Your task to perform on an android device: turn pop-ups on in chrome Image 0: 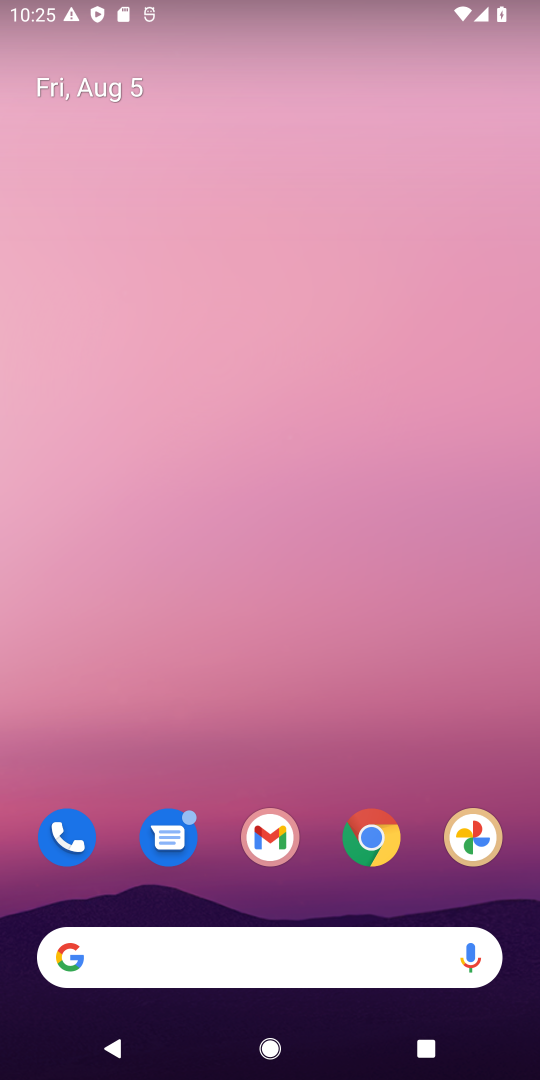
Step 0: click (364, 853)
Your task to perform on an android device: turn pop-ups on in chrome Image 1: 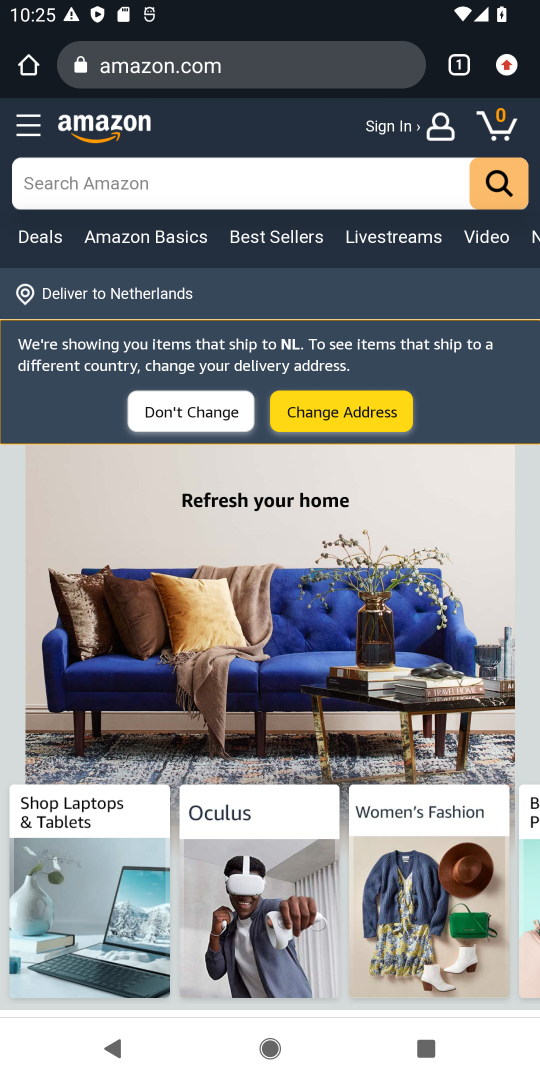
Step 1: click (508, 64)
Your task to perform on an android device: turn pop-ups on in chrome Image 2: 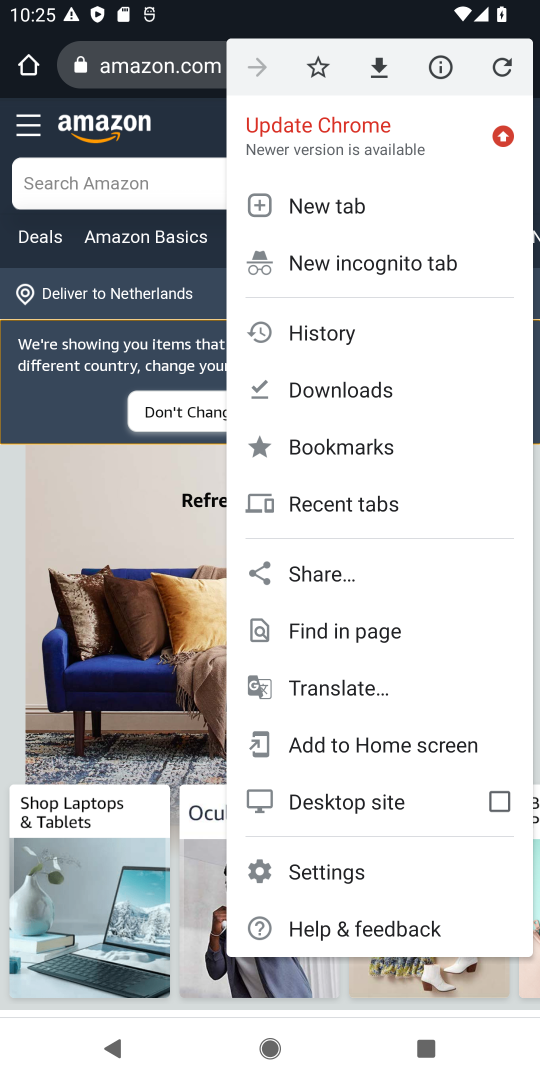
Step 2: click (332, 867)
Your task to perform on an android device: turn pop-ups on in chrome Image 3: 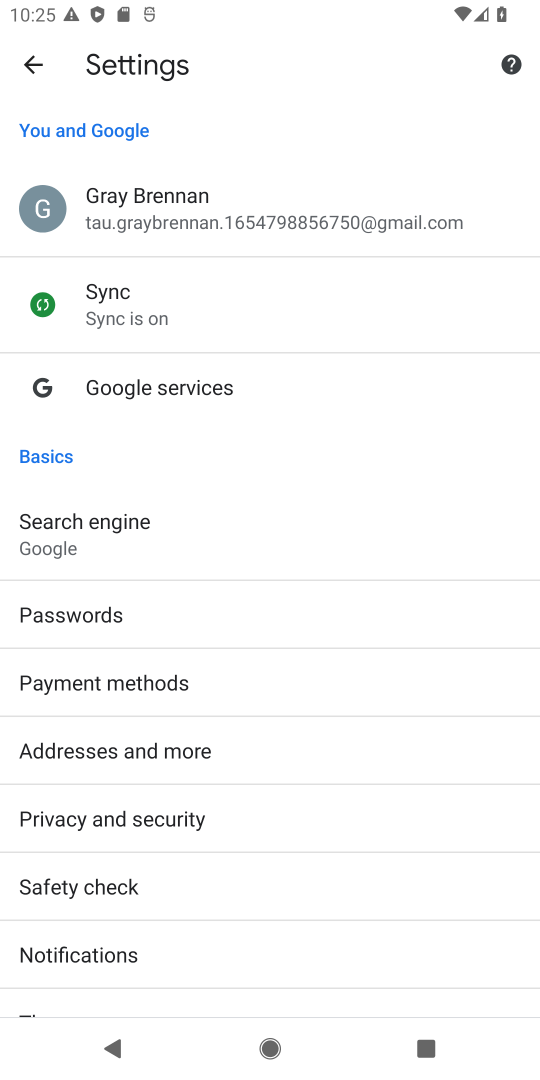
Step 3: drag from (378, 825) to (435, 404)
Your task to perform on an android device: turn pop-ups on in chrome Image 4: 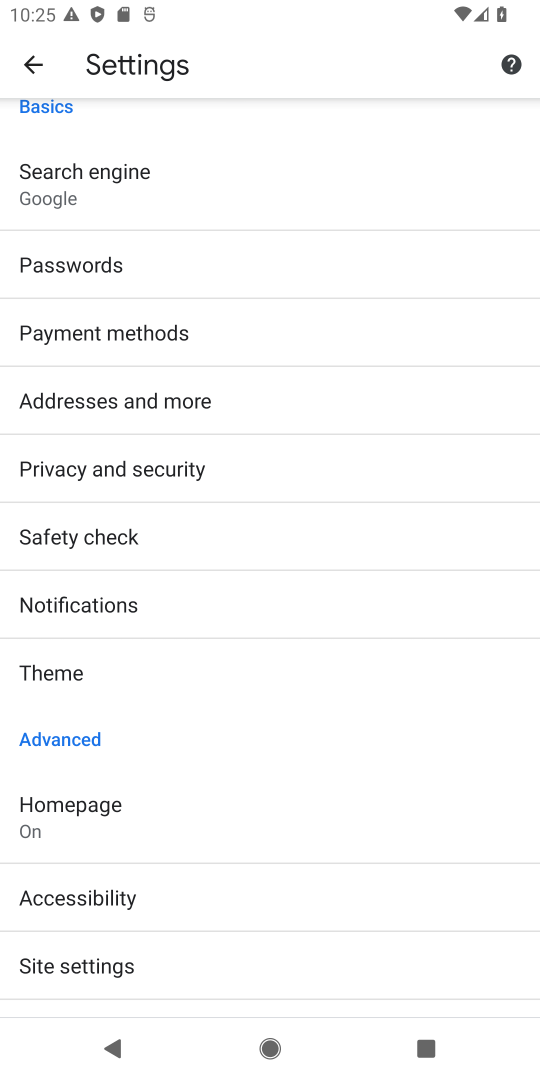
Step 4: click (123, 962)
Your task to perform on an android device: turn pop-ups on in chrome Image 5: 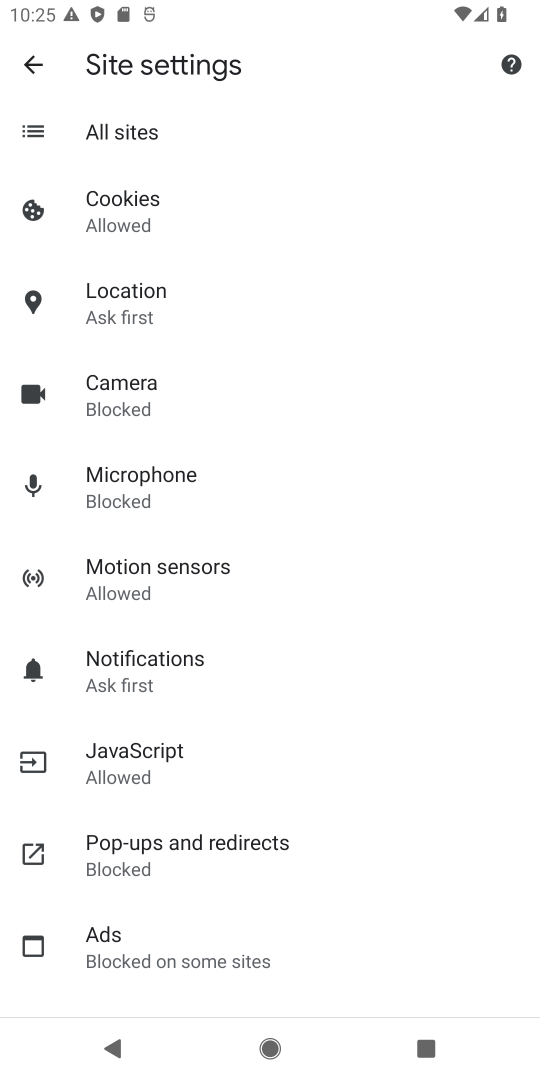
Step 5: click (177, 863)
Your task to perform on an android device: turn pop-ups on in chrome Image 6: 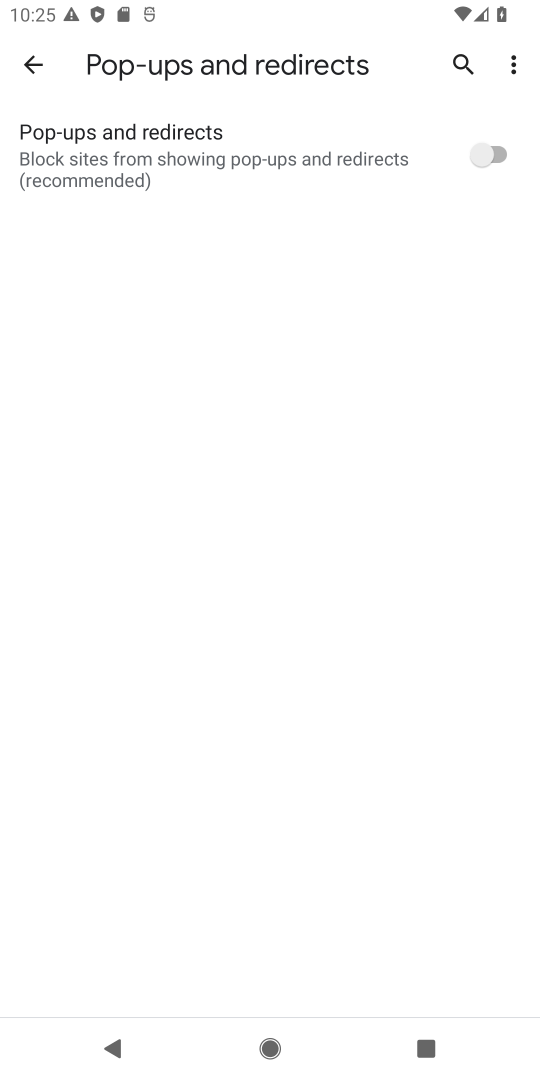
Step 6: click (490, 149)
Your task to perform on an android device: turn pop-ups on in chrome Image 7: 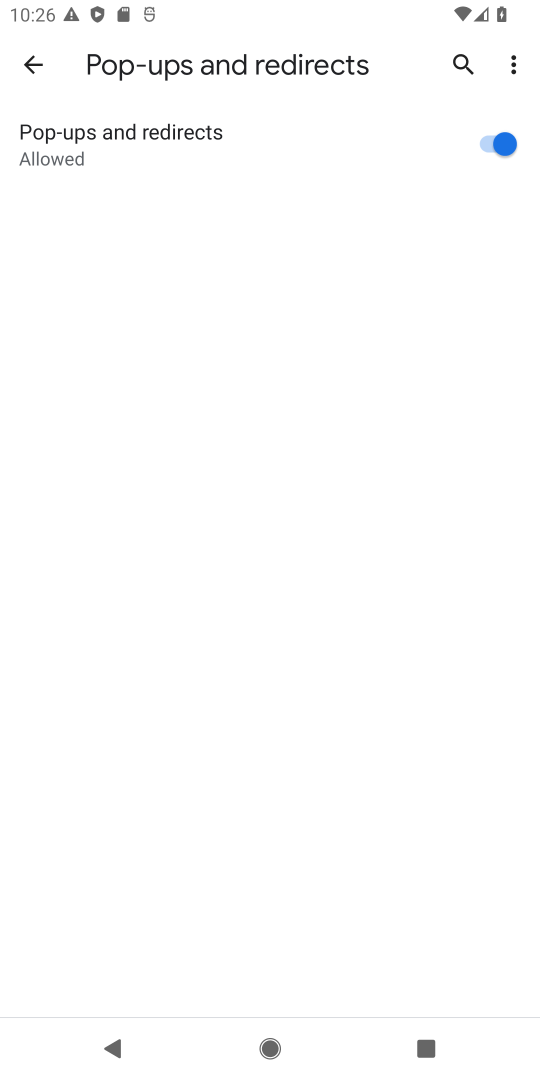
Step 7: task complete